Your task to perform on an android device: Open display settings Image 0: 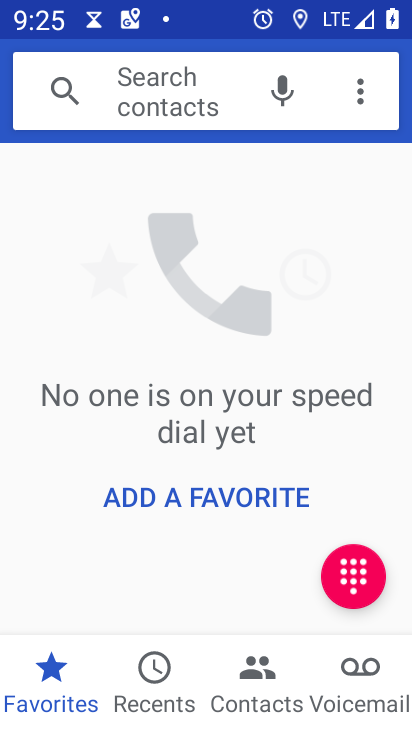
Step 0: press home button
Your task to perform on an android device: Open display settings Image 1: 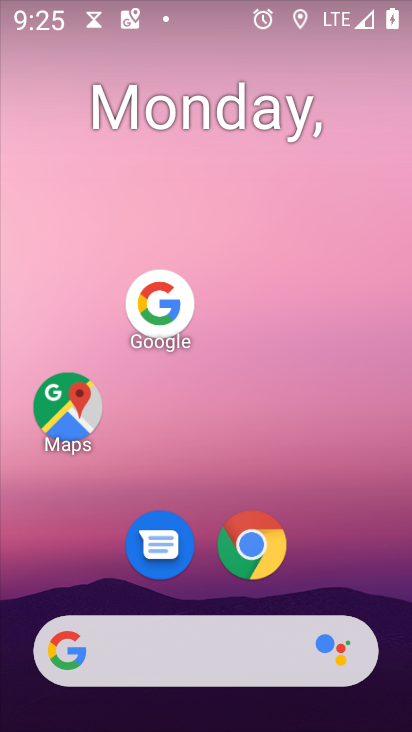
Step 1: drag from (157, 647) to (326, 89)
Your task to perform on an android device: Open display settings Image 2: 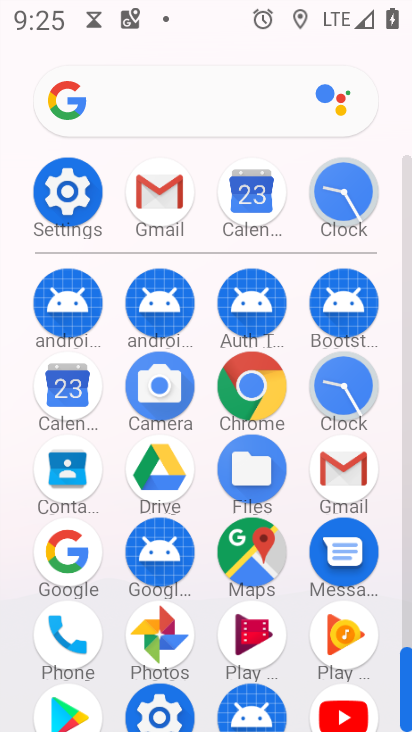
Step 2: click (77, 206)
Your task to perform on an android device: Open display settings Image 3: 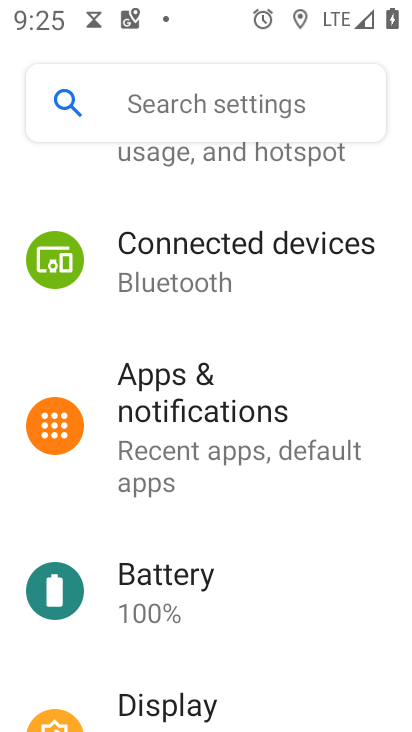
Step 3: drag from (180, 660) to (288, 414)
Your task to perform on an android device: Open display settings Image 4: 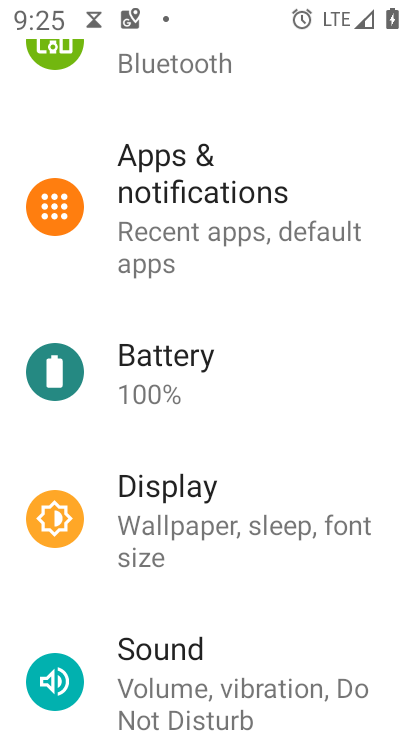
Step 4: click (187, 498)
Your task to perform on an android device: Open display settings Image 5: 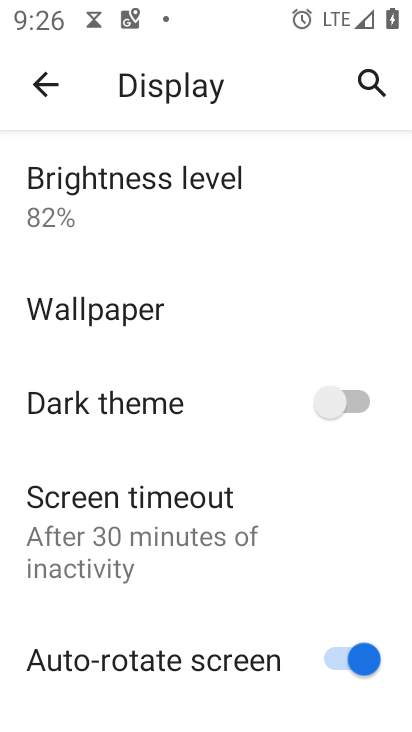
Step 5: task complete